Your task to perform on an android device: Open eBay Image 0: 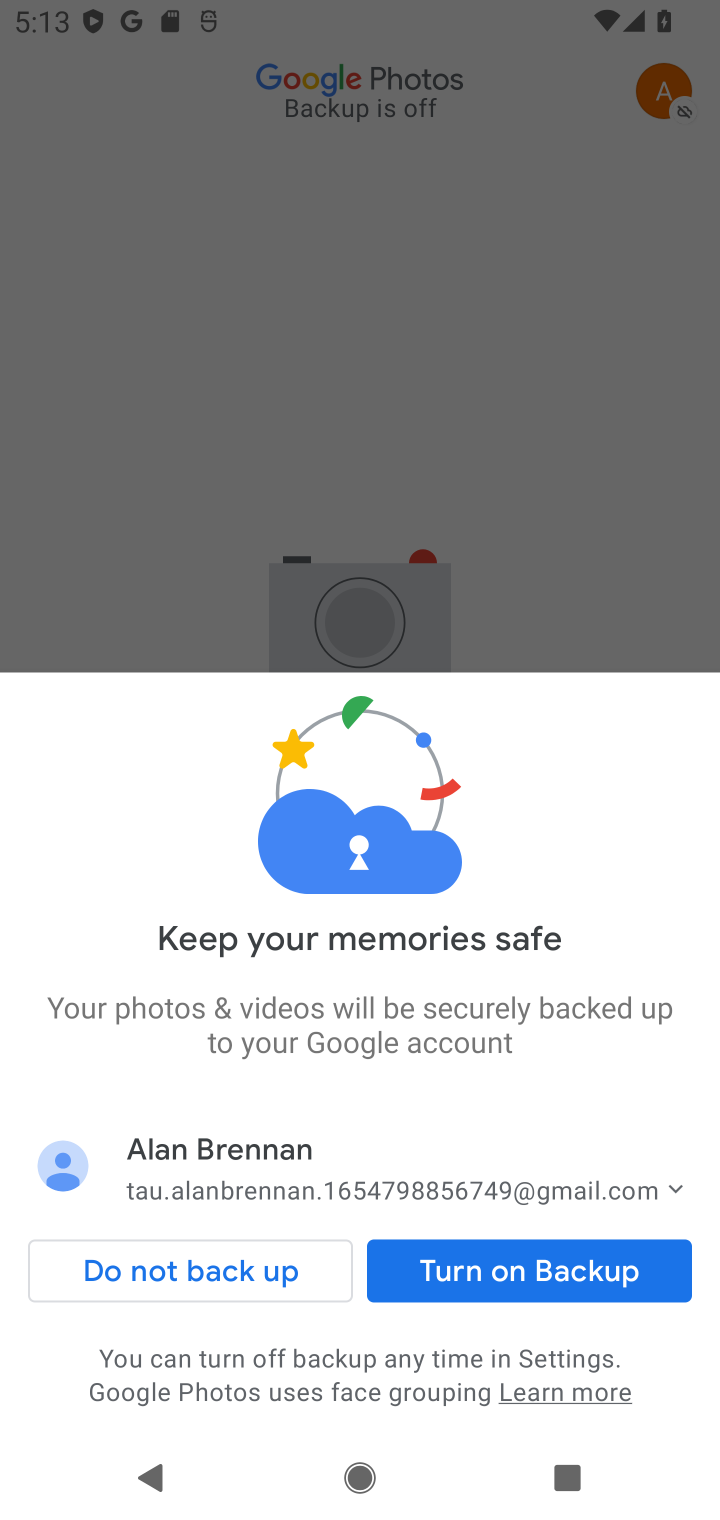
Step 0: press home button
Your task to perform on an android device: Open eBay Image 1: 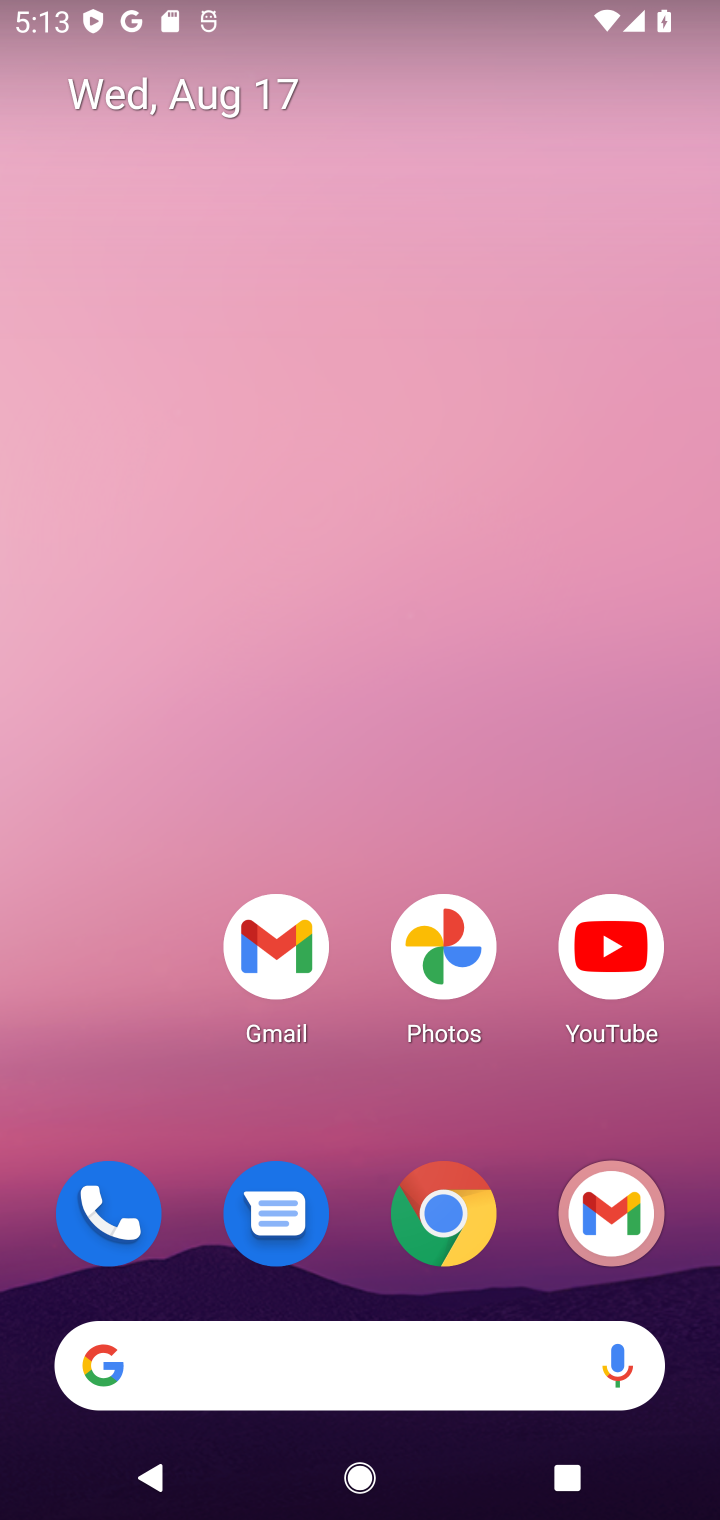
Step 1: click (464, 1207)
Your task to perform on an android device: Open eBay Image 2: 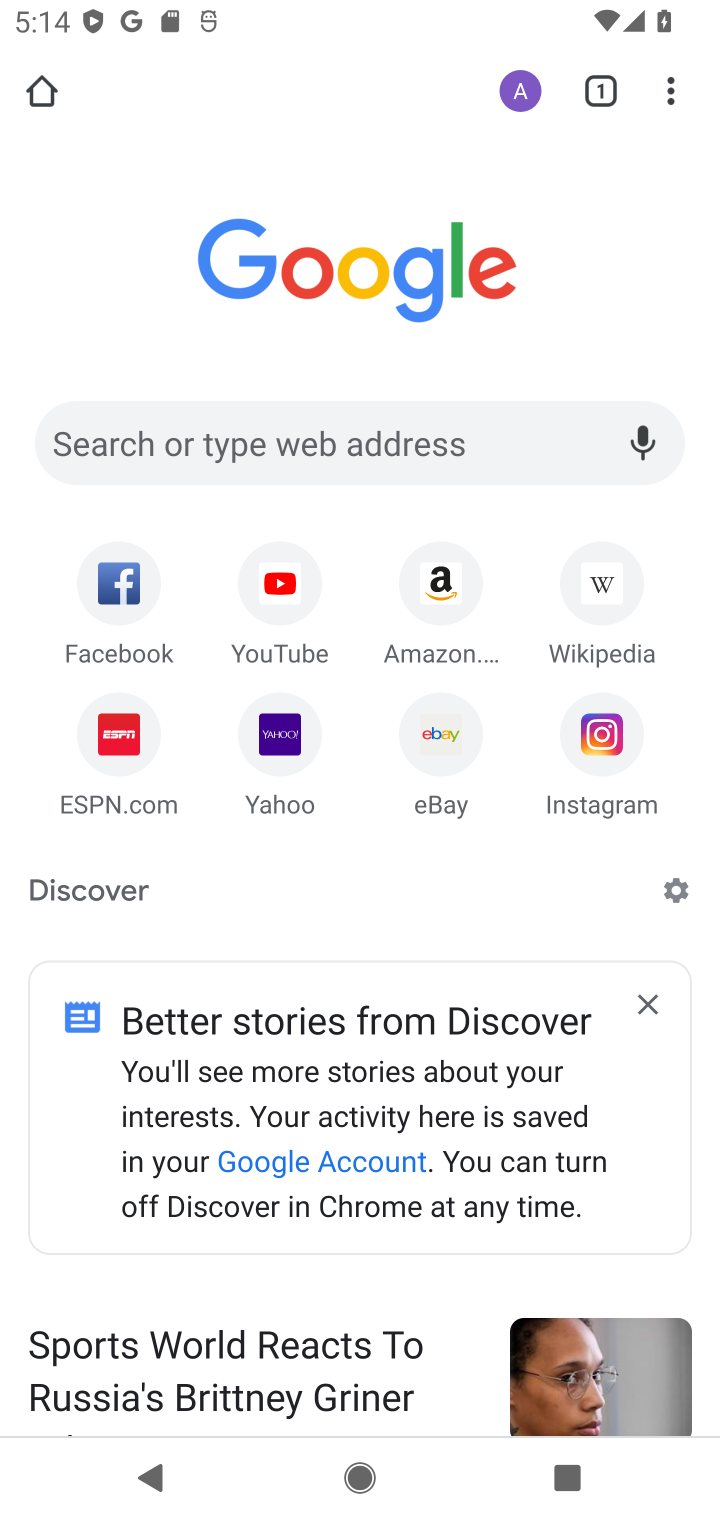
Step 2: click (450, 738)
Your task to perform on an android device: Open eBay Image 3: 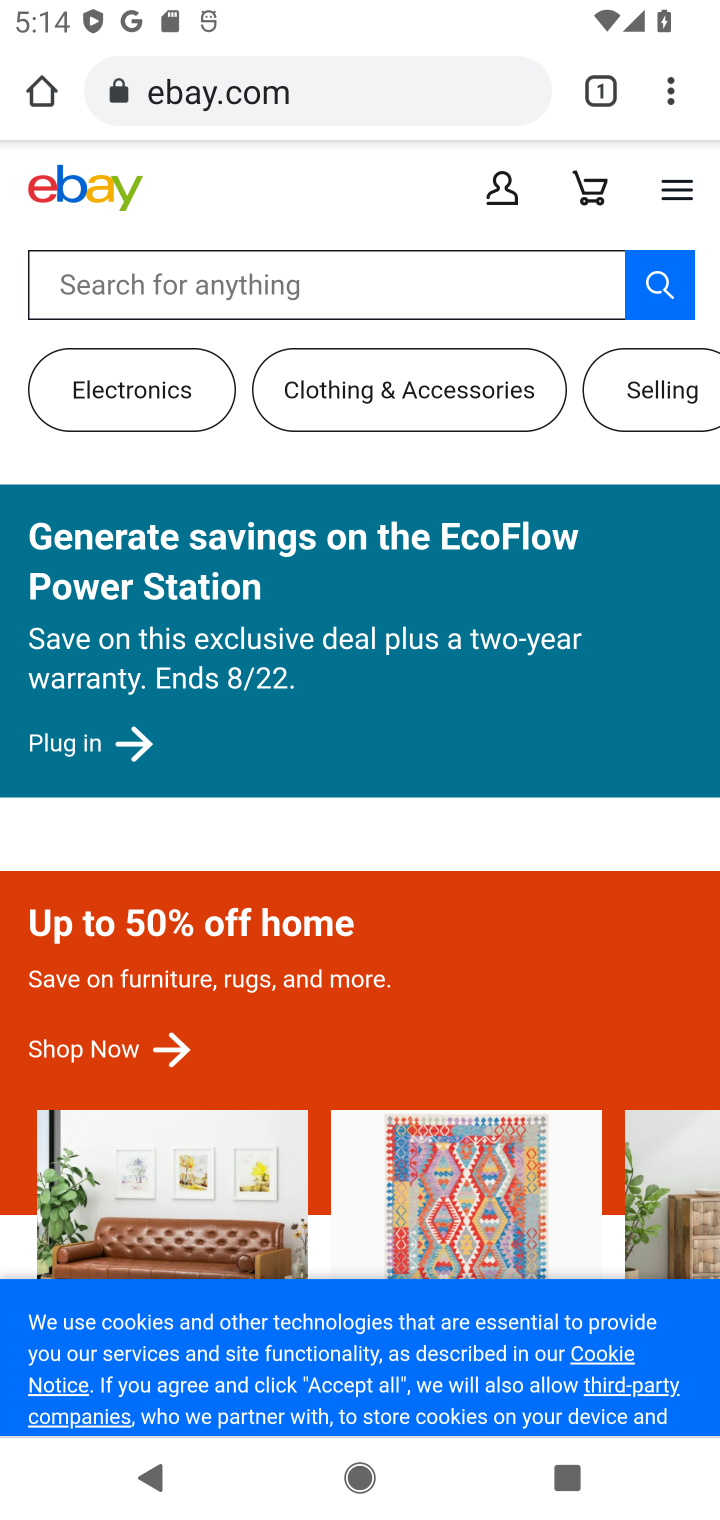
Step 3: task complete